Your task to perform on an android device: Search for seafood restaurants on Google Maps Image 0: 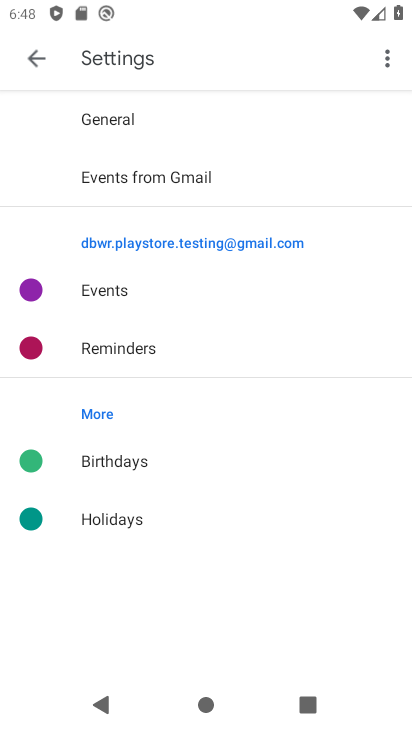
Step 0: press home button
Your task to perform on an android device: Search for seafood restaurants on Google Maps Image 1: 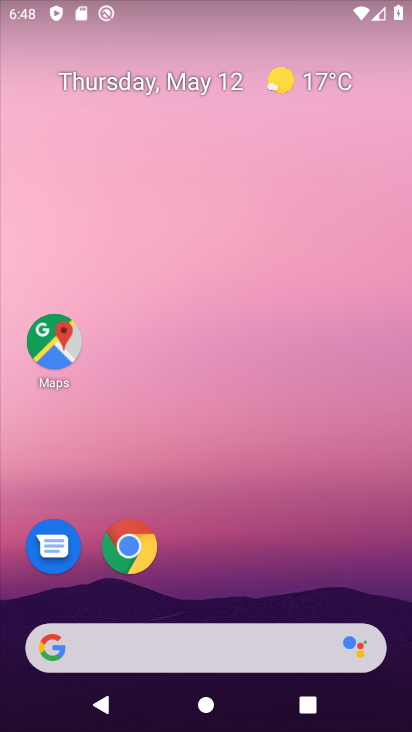
Step 1: click (51, 337)
Your task to perform on an android device: Search for seafood restaurants on Google Maps Image 2: 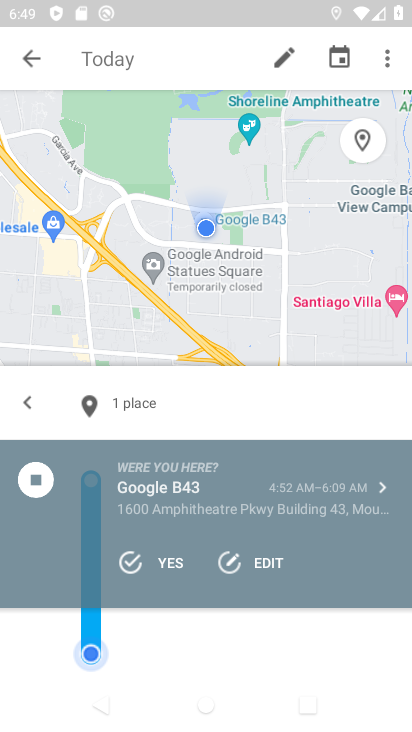
Step 2: click (26, 58)
Your task to perform on an android device: Search for seafood restaurants on Google Maps Image 3: 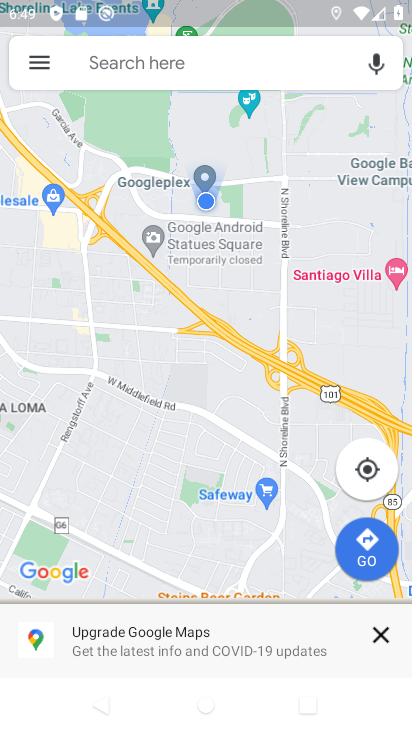
Step 3: click (159, 69)
Your task to perform on an android device: Search for seafood restaurants on Google Maps Image 4: 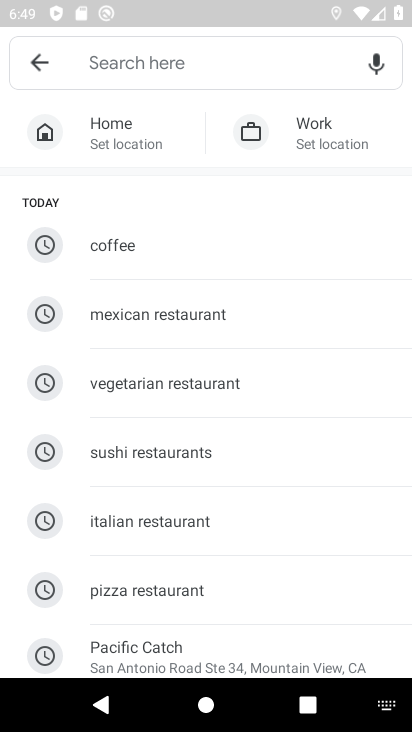
Step 4: type "seafood"
Your task to perform on an android device: Search for seafood restaurants on Google Maps Image 5: 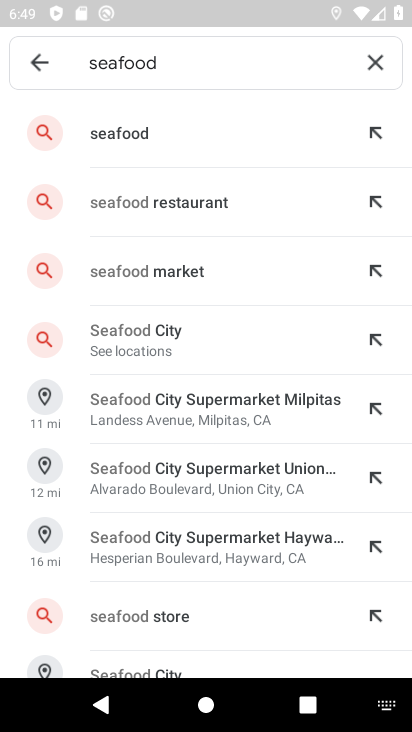
Step 5: click (186, 202)
Your task to perform on an android device: Search for seafood restaurants on Google Maps Image 6: 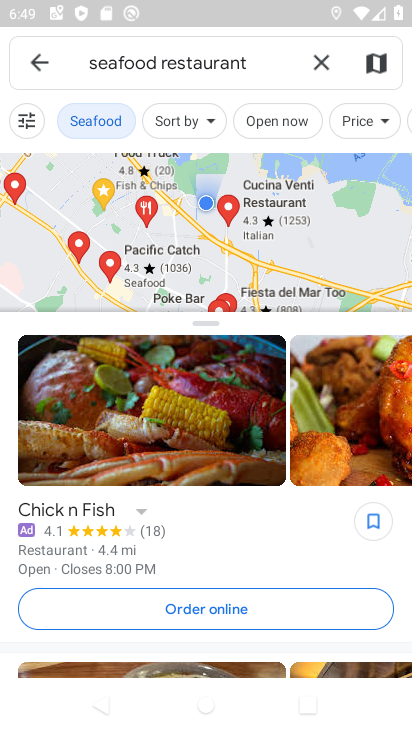
Step 6: task complete